Your task to perform on an android device: Show me the alarms in the clock app Image 0: 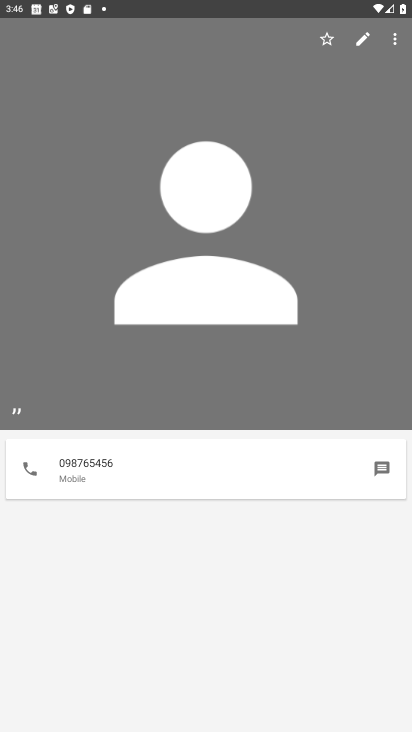
Step 0: press home button
Your task to perform on an android device: Show me the alarms in the clock app Image 1: 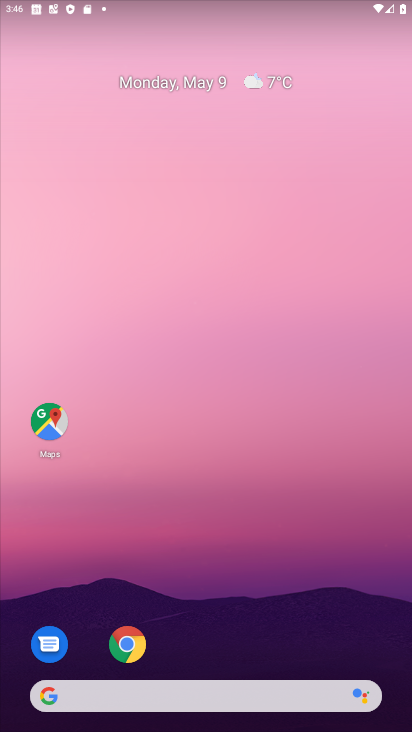
Step 1: drag from (287, 612) to (176, 16)
Your task to perform on an android device: Show me the alarms in the clock app Image 2: 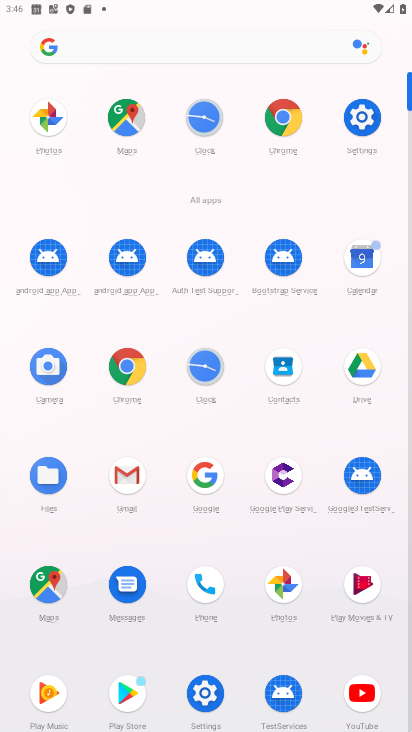
Step 2: click (200, 361)
Your task to perform on an android device: Show me the alarms in the clock app Image 3: 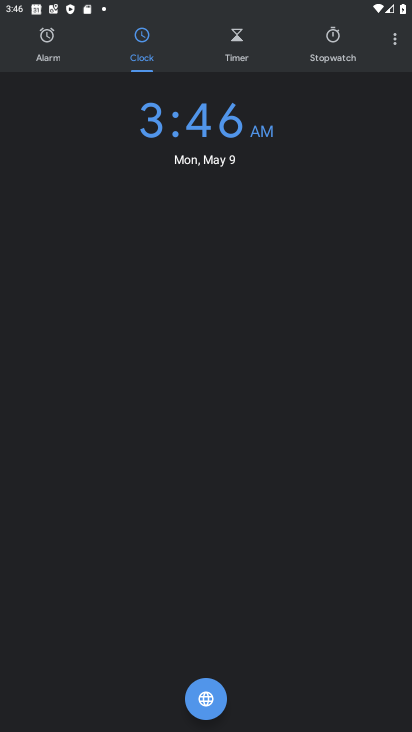
Step 3: click (47, 52)
Your task to perform on an android device: Show me the alarms in the clock app Image 4: 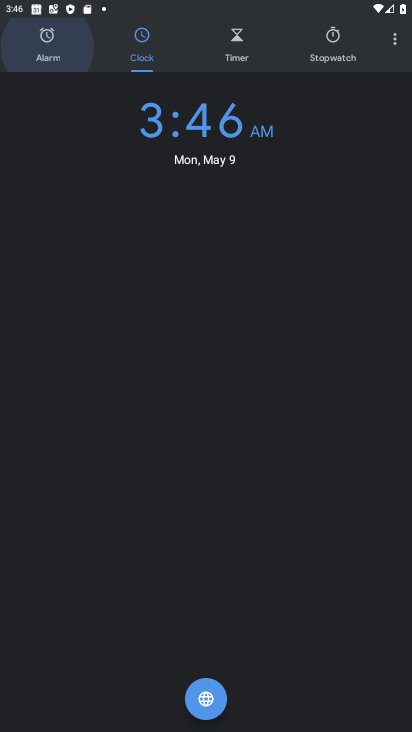
Step 4: click (46, 45)
Your task to perform on an android device: Show me the alarms in the clock app Image 5: 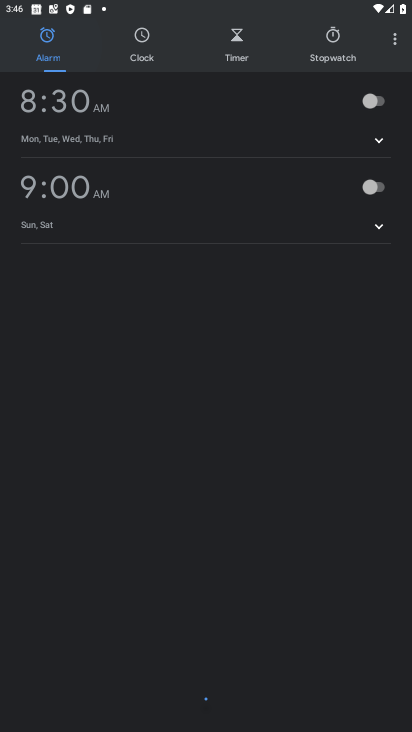
Step 5: click (46, 44)
Your task to perform on an android device: Show me the alarms in the clock app Image 6: 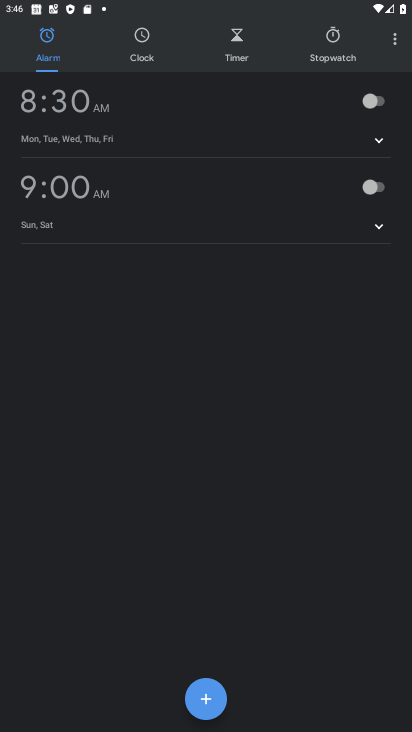
Step 6: click (372, 93)
Your task to perform on an android device: Show me the alarms in the clock app Image 7: 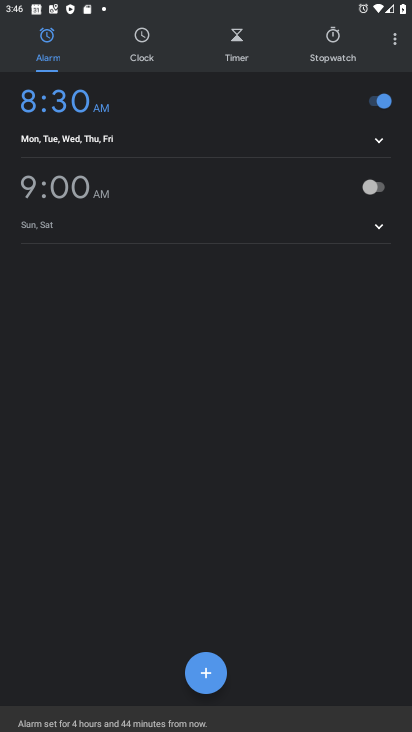
Step 7: task complete